Your task to perform on an android device: What's the weather going to be tomorrow? Image 0: 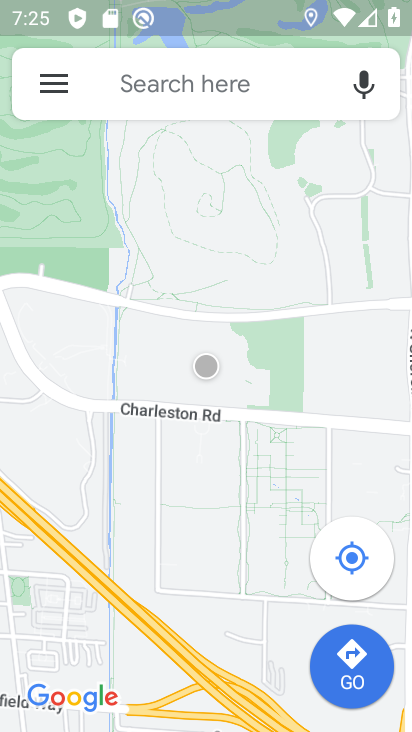
Step 0: press home button
Your task to perform on an android device: What's the weather going to be tomorrow? Image 1: 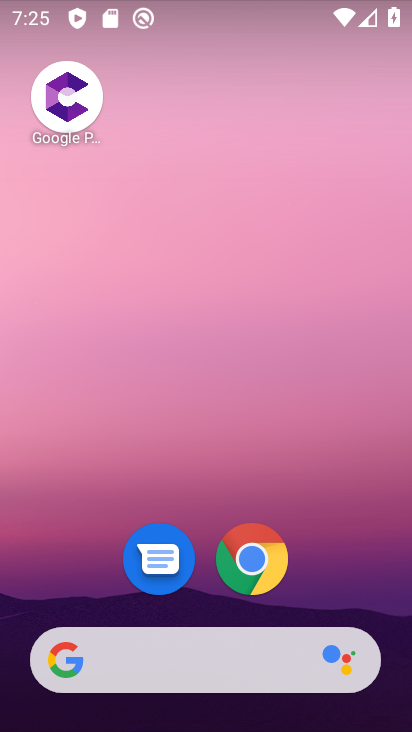
Step 1: drag from (376, 568) to (369, 197)
Your task to perform on an android device: What's the weather going to be tomorrow? Image 2: 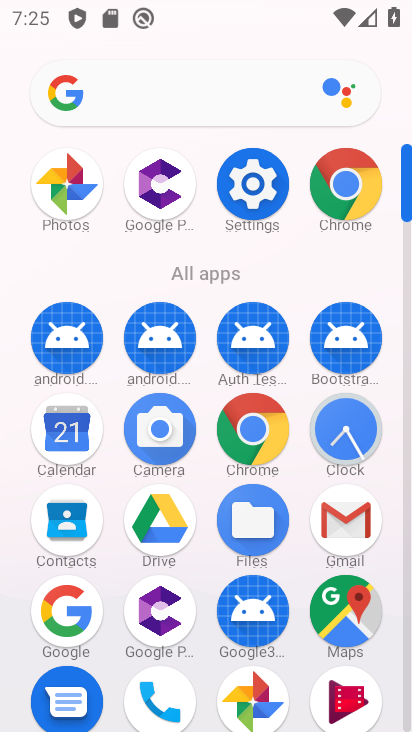
Step 2: click (242, 448)
Your task to perform on an android device: What's the weather going to be tomorrow? Image 3: 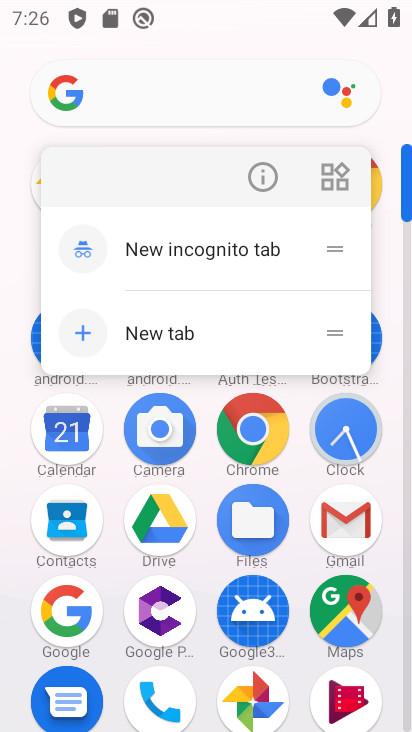
Step 3: click (254, 430)
Your task to perform on an android device: What's the weather going to be tomorrow? Image 4: 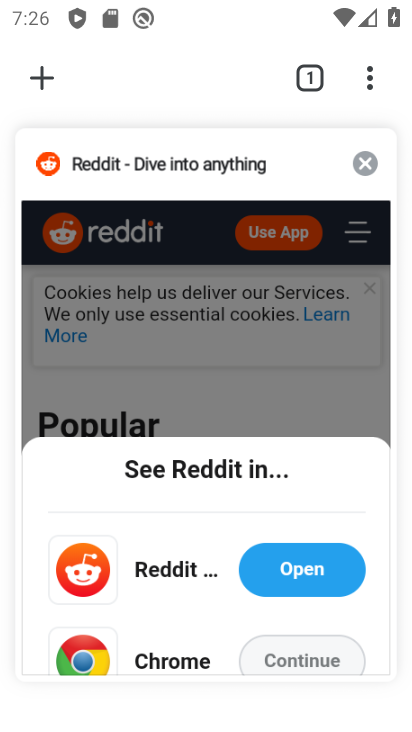
Step 4: click (45, 81)
Your task to perform on an android device: What's the weather going to be tomorrow? Image 5: 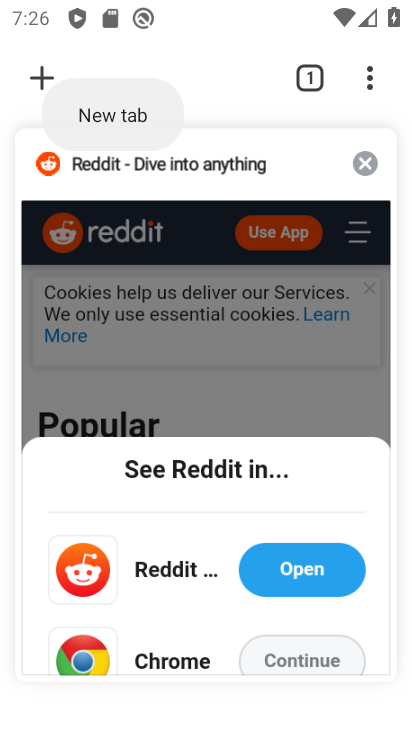
Step 5: click (41, 62)
Your task to perform on an android device: What's the weather going to be tomorrow? Image 6: 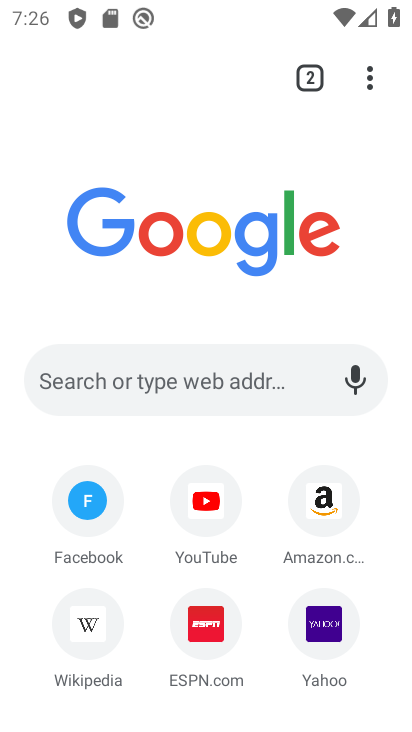
Step 6: click (190, 377)
Your task to perform on an android device: What's the weather going to be tomorrow? Image 7: 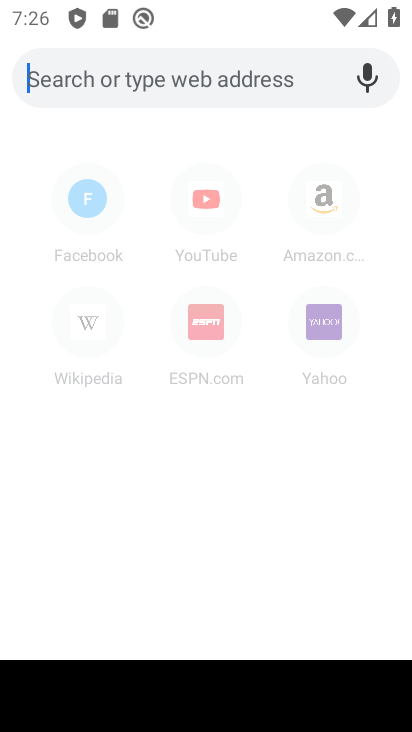
Step 7: type "what's the weather going to be tomorrow"
Your task to perform on an android device: What's the weather going to be tomorrow? Image 8: 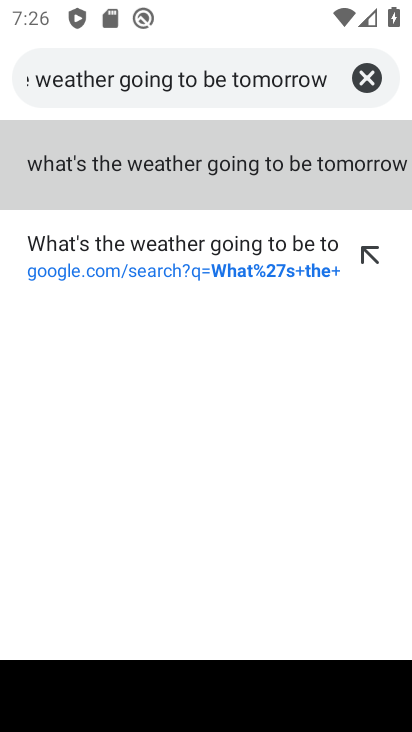
Step 8: click (103, 170)
Your task to perform on an android device: What's the weather going to be tomorrow? Image 9: 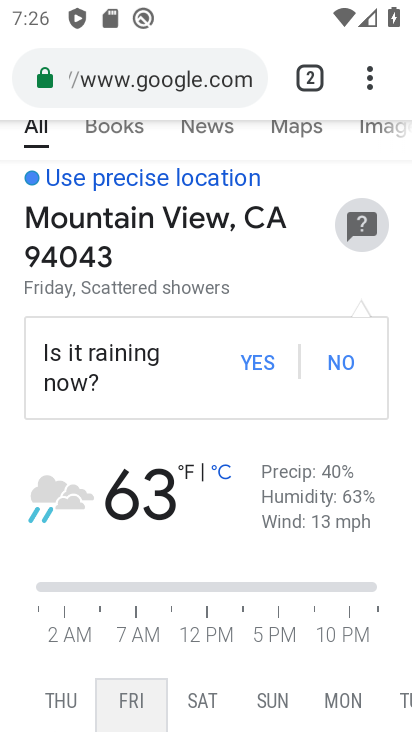
Step 9: task complete